Your task to perform on an android device: Go to location settings Image 0: 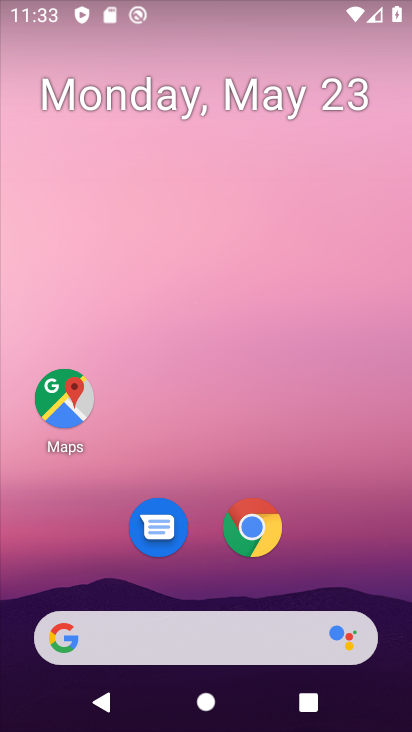
Step 0: drag from (298, 568) to (291, 50)
Your task to perform on an android device: Go to location settings Image 1: 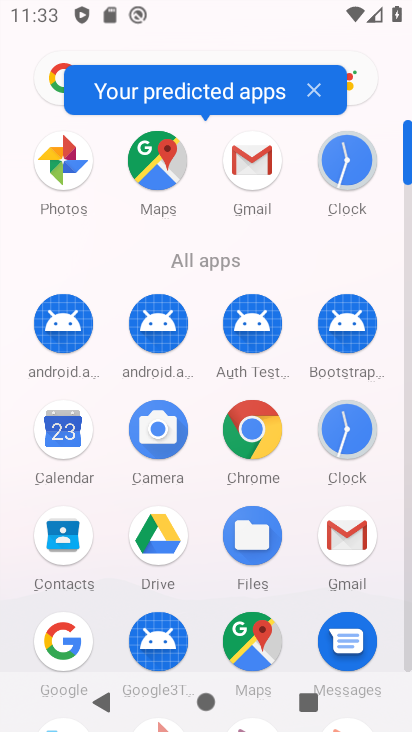
Step 1: drag from (227, 573) to (242, 210)
Your task to perform on an android device: Go to location settings Image 2: 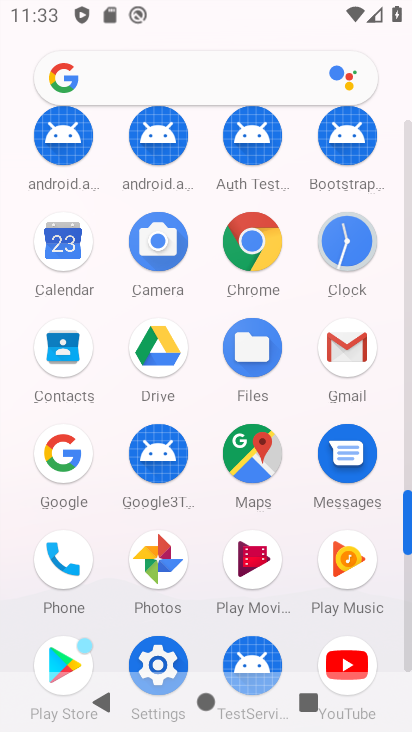
Step 2: click (151, 641)
Your task to perform on an android device: Go to location settings Image 3: 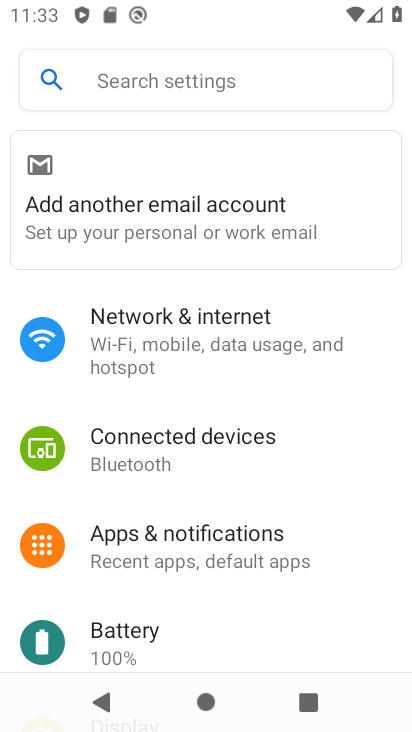
Step 3: drag from (266, 618) to (244, 128)
Your task to perform on an android device: Go to location settings Image 4: 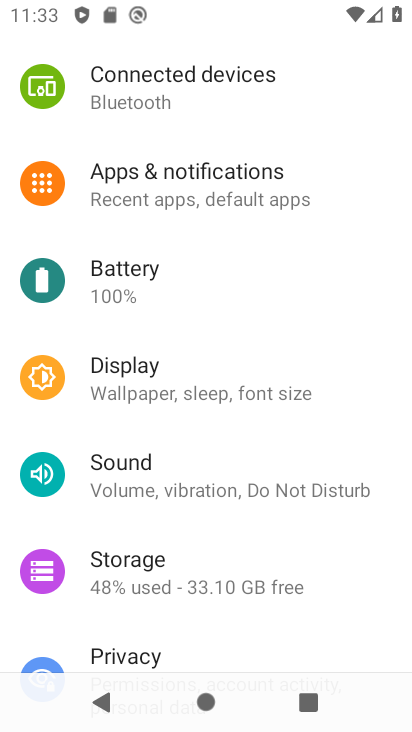
Step 4: drag from (268, 592) to (221, 163)
Your task to perform on an android device: Go to location settings Image 5: 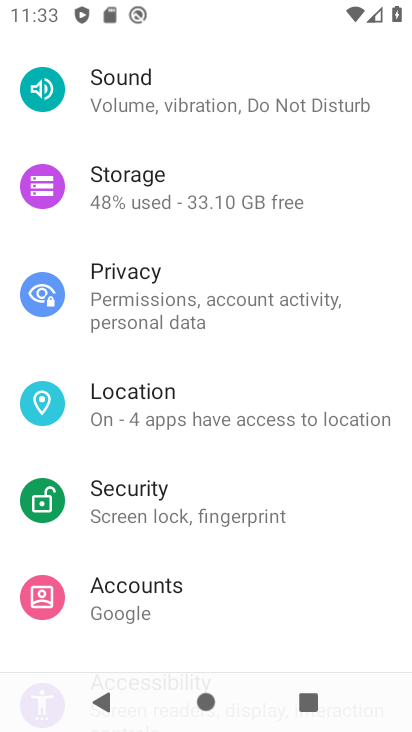
Step 5: click (227, 410)
Your task to perform on an android device: Go to location settings Image 6: 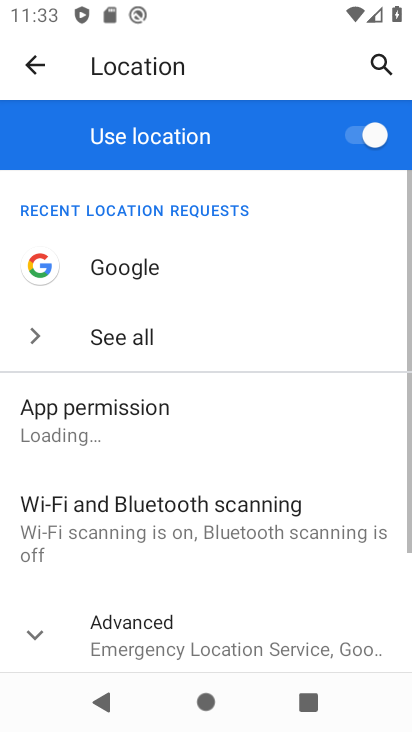
Step 6: task complete